Your task to perform on an android device: uninstall "YouTube Kids" Image 0: 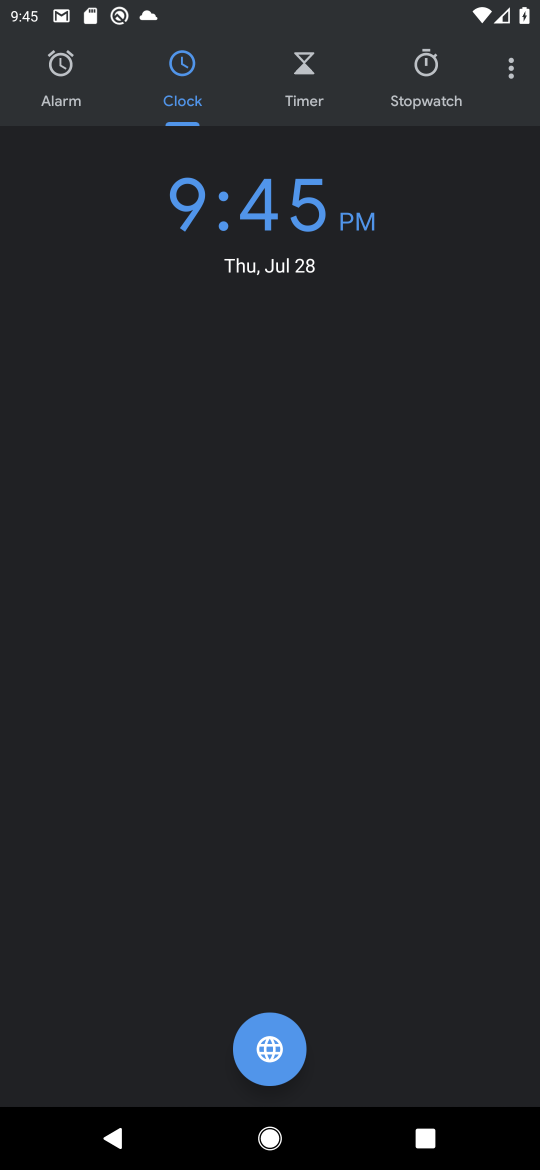
Step 0: press home button
Your task to perform on an android device: uninstall "YouTube Kids" Image 1: 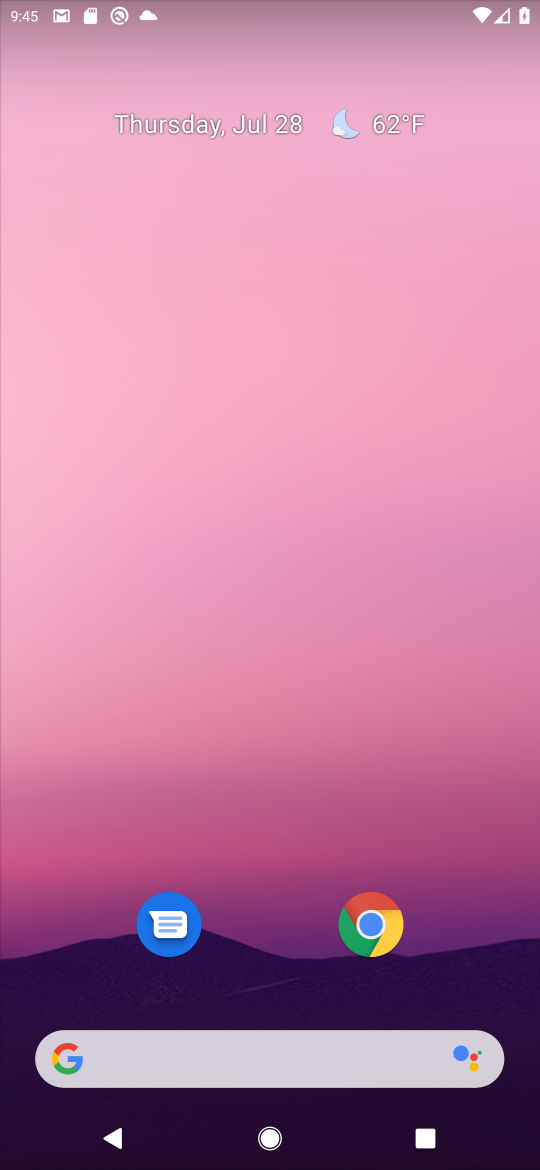
Step 1: drag from (293, 1060) to (276, 177)
Your task to perform on an android device: uninstall "YouTube Kids" Image 2: 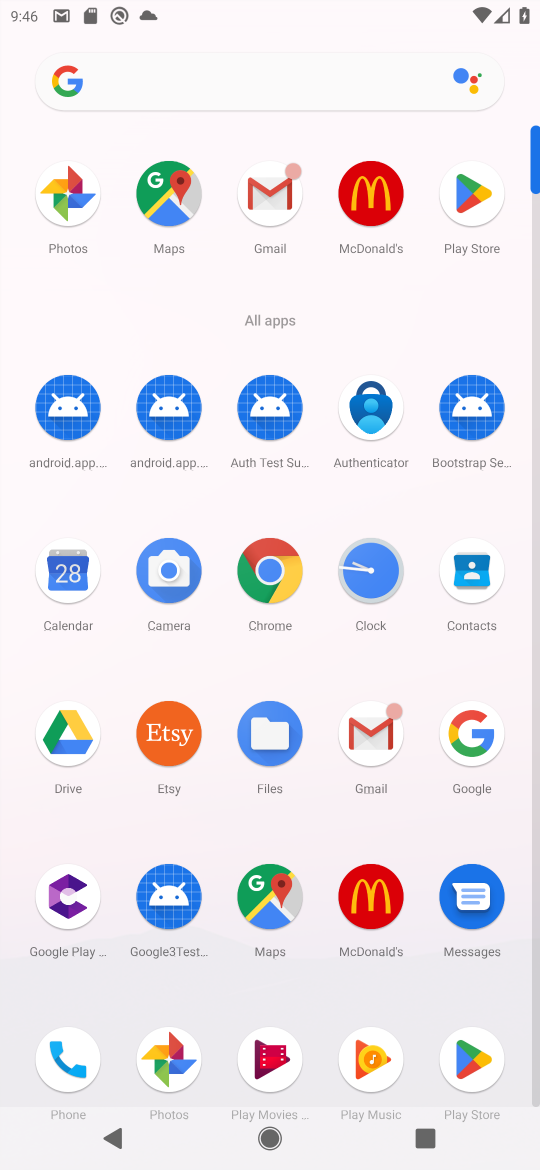
Step 2: click (480, 204)
Your task to perform on an android device: uninstall "YouTube Kids" Image 3: 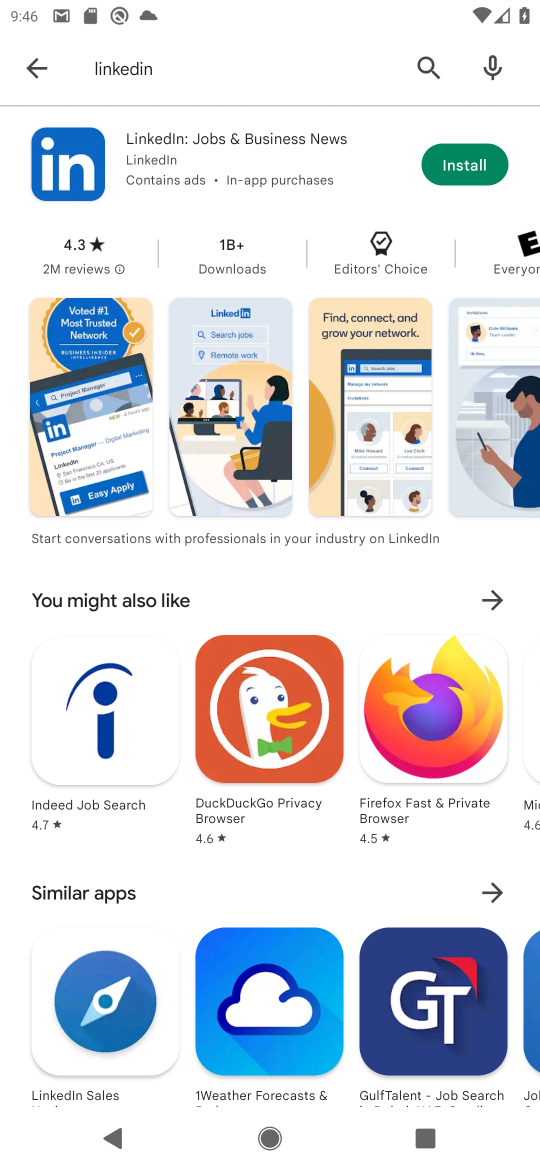
Step 3: click (426, 72)
Your task to perform on an android device: uninstall "YouTube Kids" Image 4: 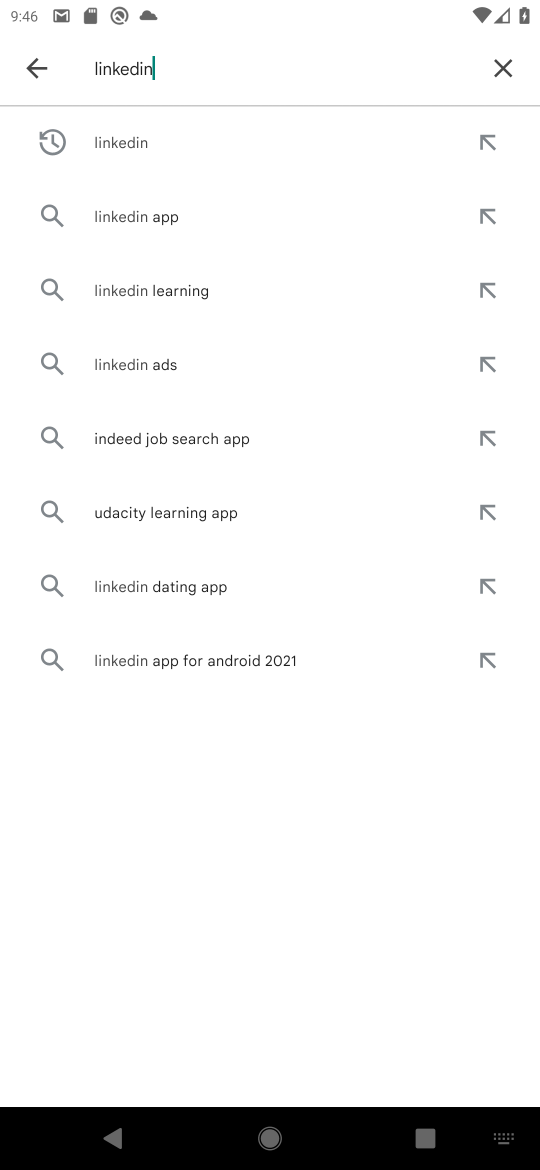
Step 4: click (500, 74)
Your task to perform on an android device: uninstall "YouTube Kids" Image 5: 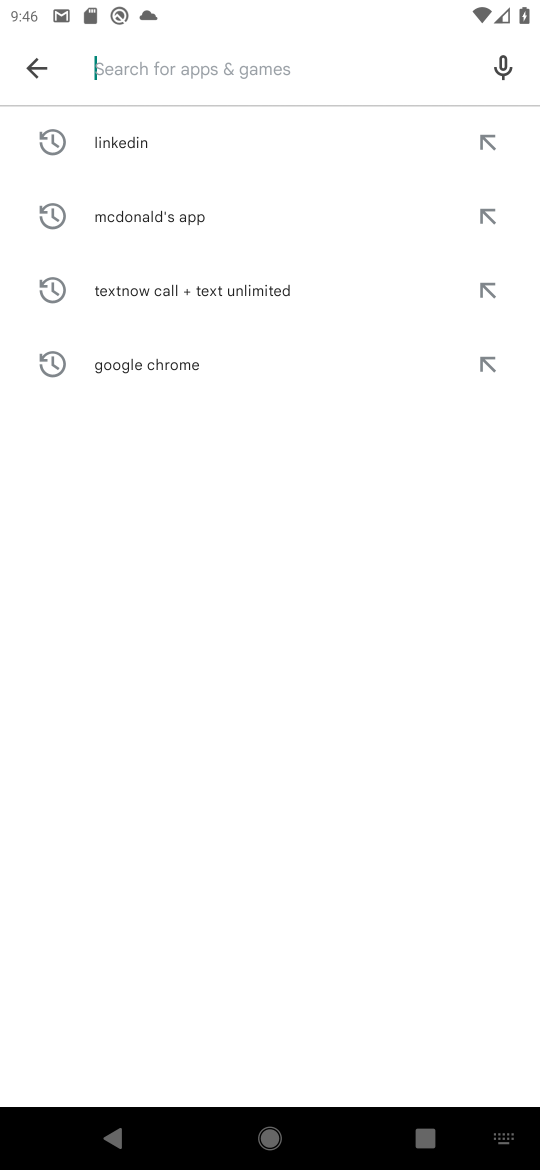
Step 5: type "YouTube Kids"
Your task to perform on an android device: uninstall "YouTube Kids" Image 6: 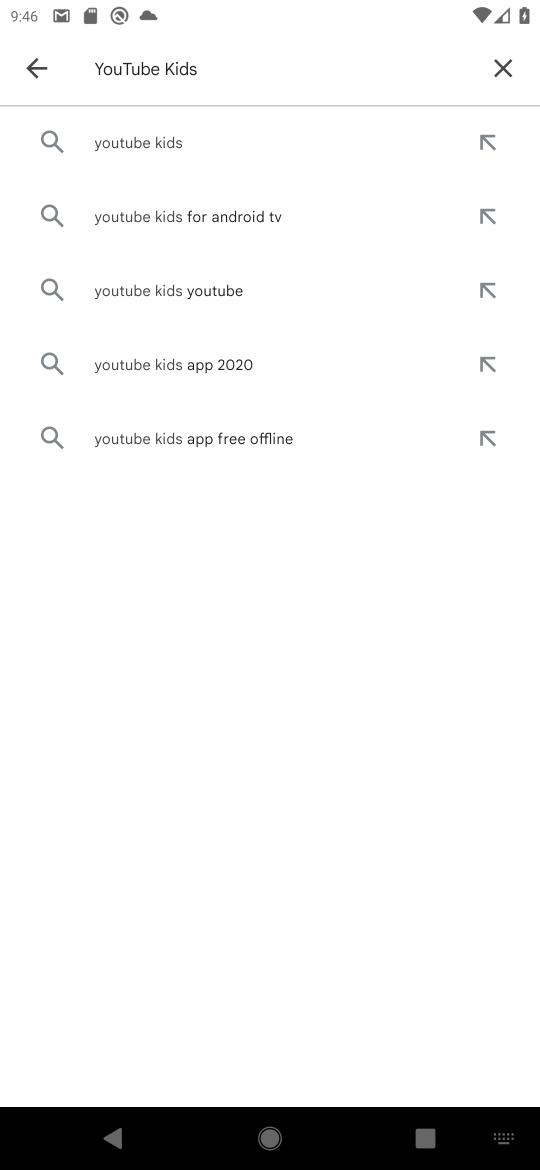
Step 6: click (140, 156)
Your task to perform on an android device: uninstall "YouTube Kids" Image 7: 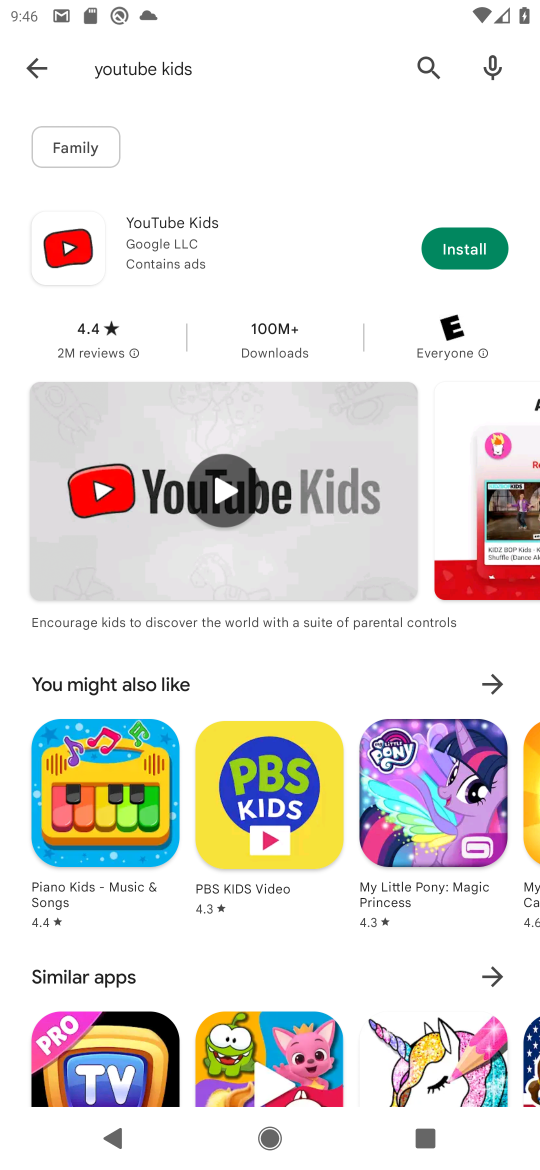
Step 7: task complete